Your task to perform on an android device: find photos in the google photos app Image 0: 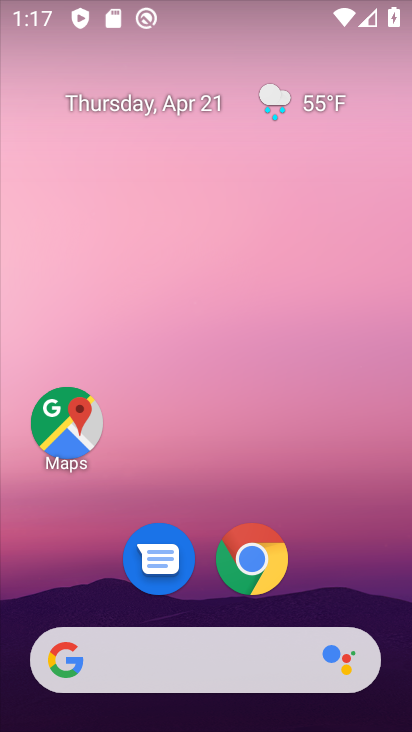
Step 0: drag from (154, 699) to (383, 239)
Your task to perform on an android device: find photos in the google photos app Image 1: 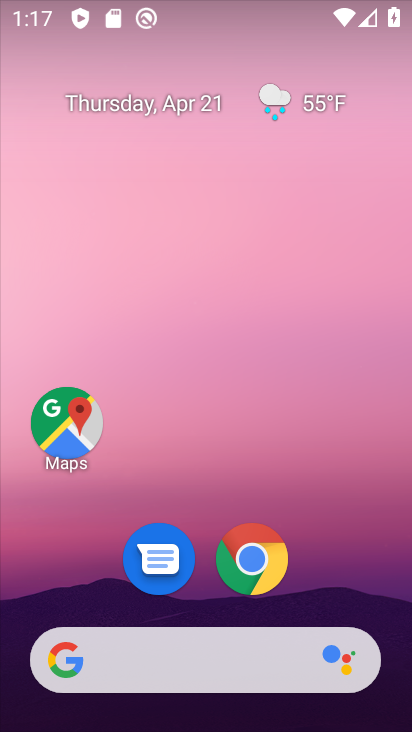
Step 1: drag from (186, 724) to (257, 257)
Your task to perform on an android device: find photos in the google photos app Image 2: 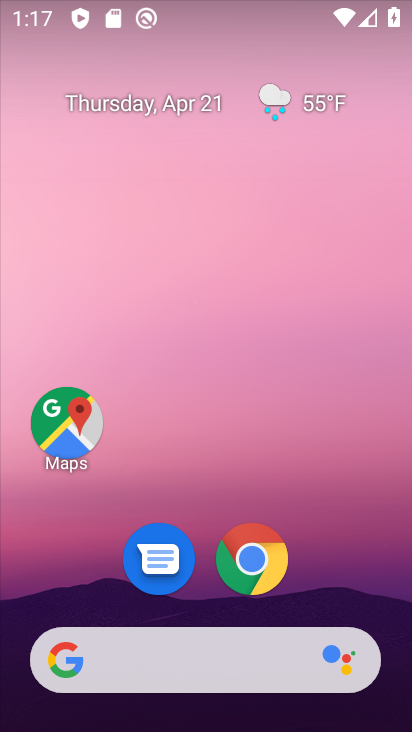
Step 2: drag from (166, 647) to (284, 198)
Your task to perform on an android device: find photos in the google photos app Image 3: 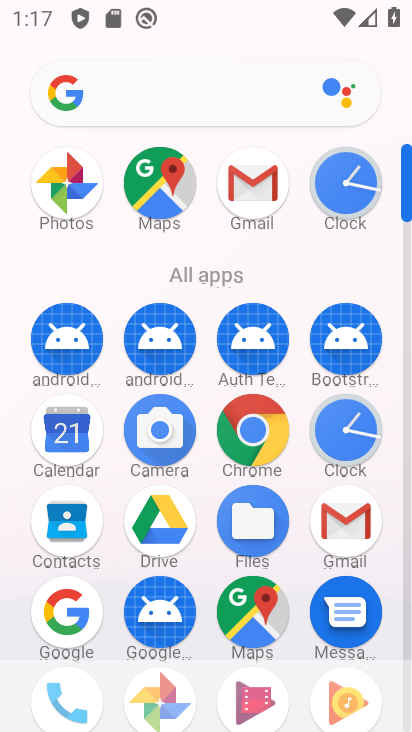
Step 3: click (70, 200)
Your task to perform on an android device: find photos in the google photos app Image 4: 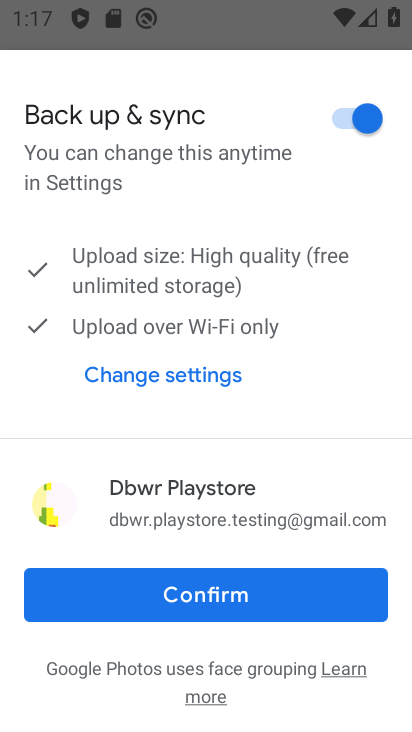
Step 4: drag from (101, 503) to (234, 254)
Your task to perform on an android device: find photos in the google photos app Image 5: 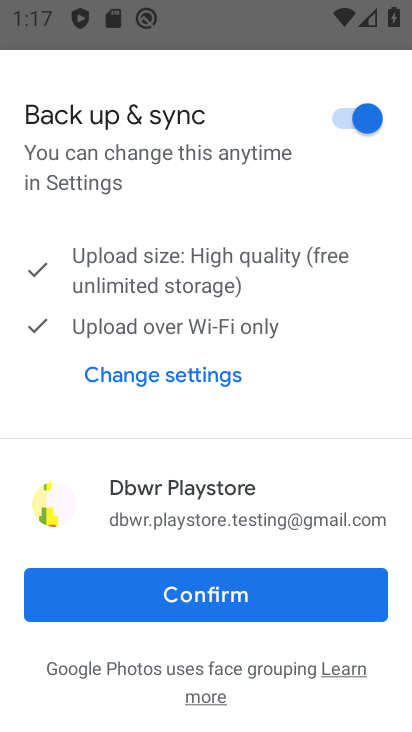
Step 5: click (203, 607)
Your task to perform on an android device: find photos in the google photos app Image 6: 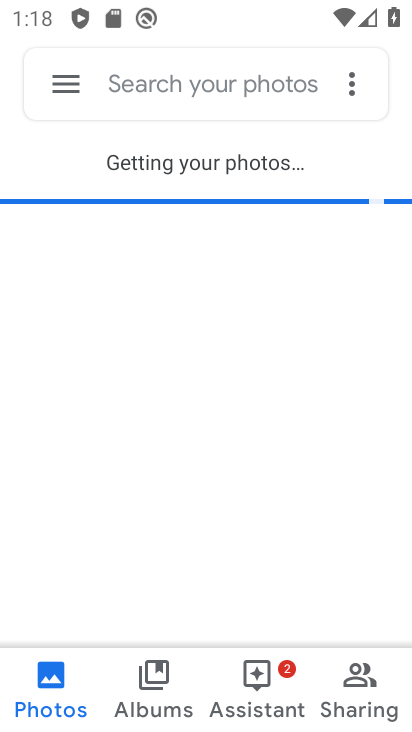
Step 6: task complete